Your task to perform on an android device: move an email to a new category in the gmail app Image 0: 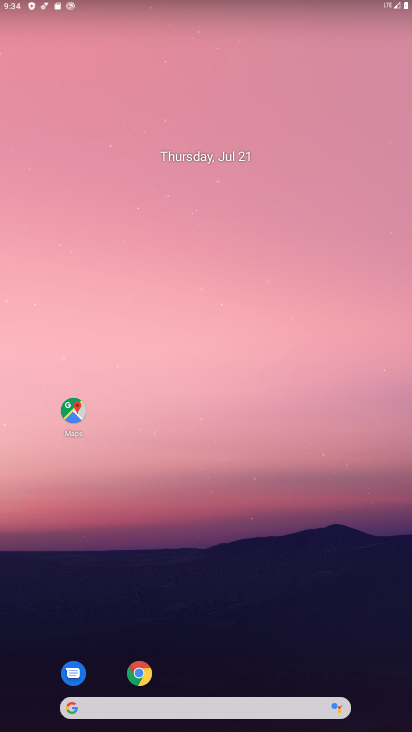
Step 0: drag from (182, 677) to (251, 180)
Your task to perform on an android device: move an email to a new category in the gmail app Image 1: 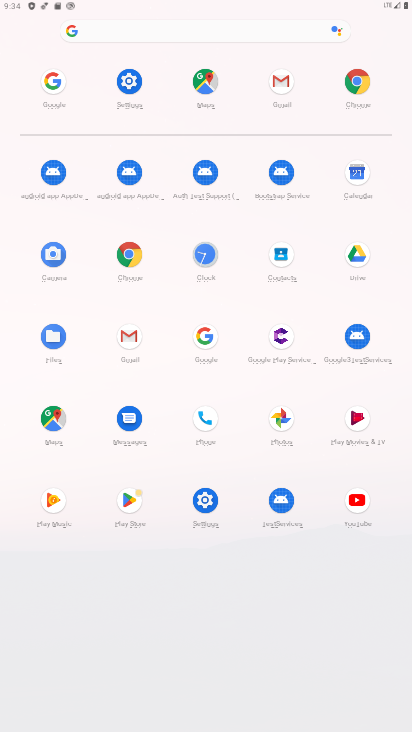
Step 1: click (123, 329)
Your task to perform on an android device: move an email to a new category in the gmail app Image 2: 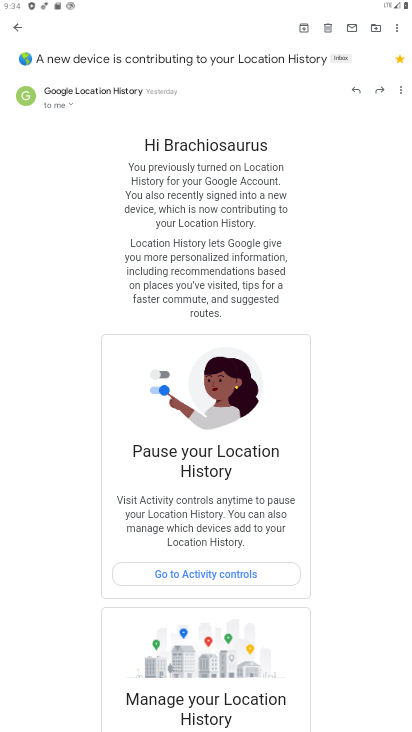
Step 2: click (395, 92)
Your task to perform on an android device: move an email to a new category in the gmail app Image 3: 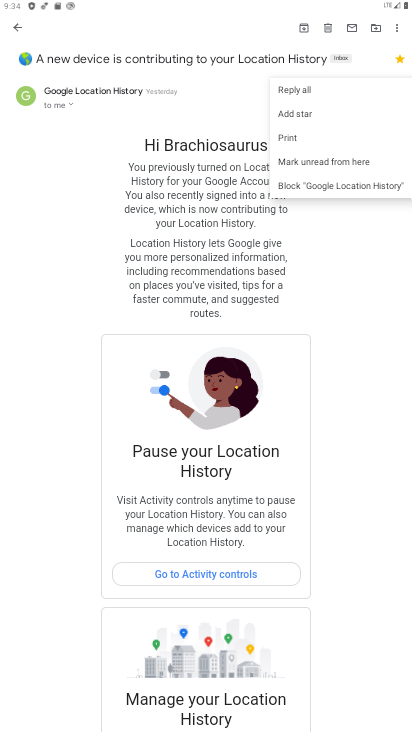
Step 3: click (102, 166)
Your task to perform on an android device: move an email to a new category in the gmail app Image 4: 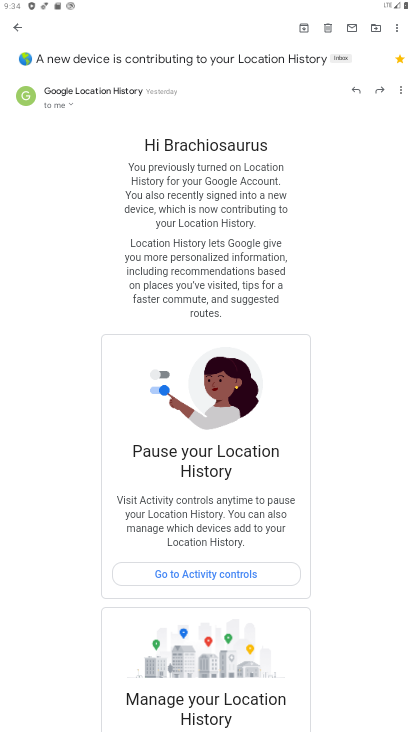
Step 4: click (393, 21)
Your task to perform on an android device: move an email to a new category in the gmail app Image 5: 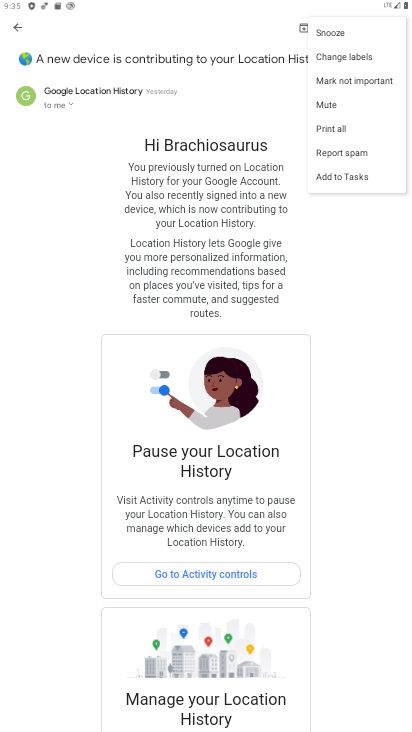
Step 5: click (350, 31)
Your task to perform on an android device: move an email to a new category in the gmail app Image 6: 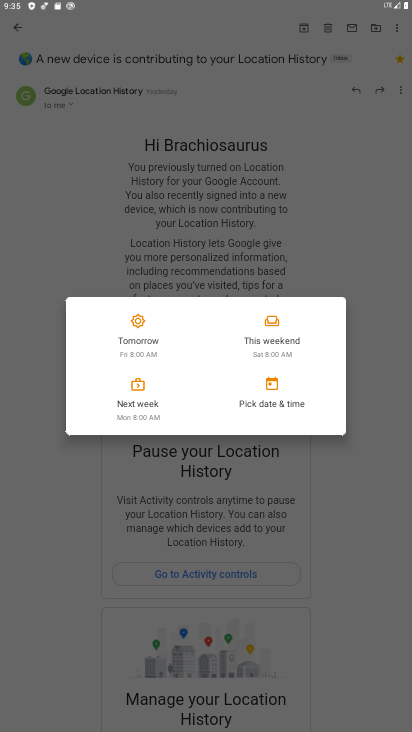
Step 6: click (131, 329)
Your task to perform on an android device: move an email to a new category in the gmail app Image 7: 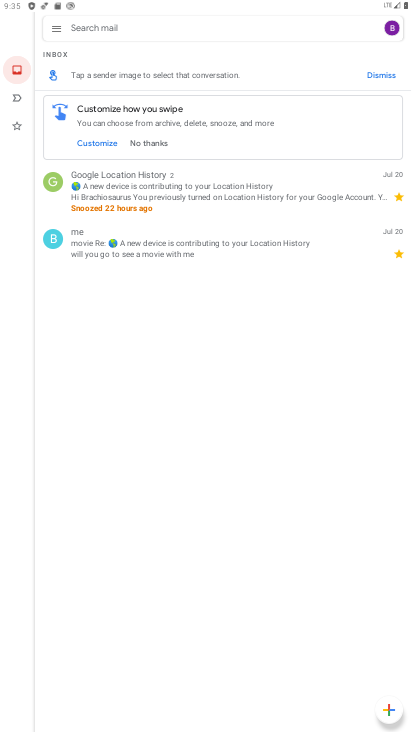
Step 7: task complete